Your task to perform on an android device: toggle improve location accuracy Image 0: 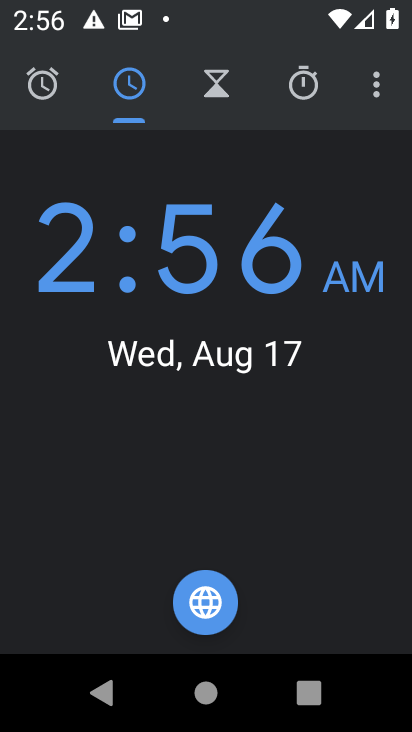
Step 0: drag from (330, 515) to (357, 107)
Your task to perform on an android device: toggle improve location accuracy Image 1: 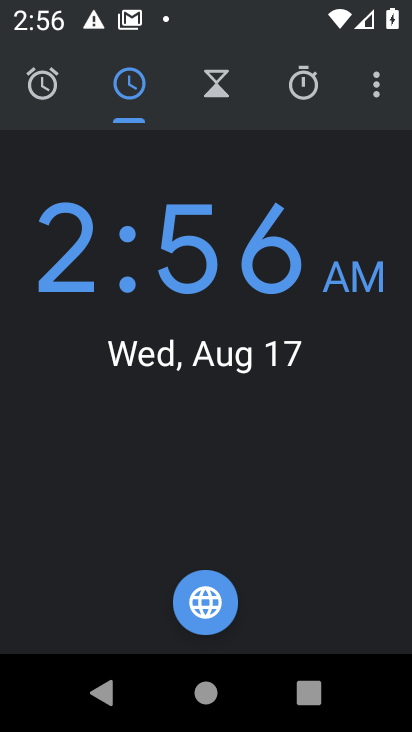
Step 1: task complete